Your task to perform on an android device: see tabs open on other devices in the chrome app Image 0: 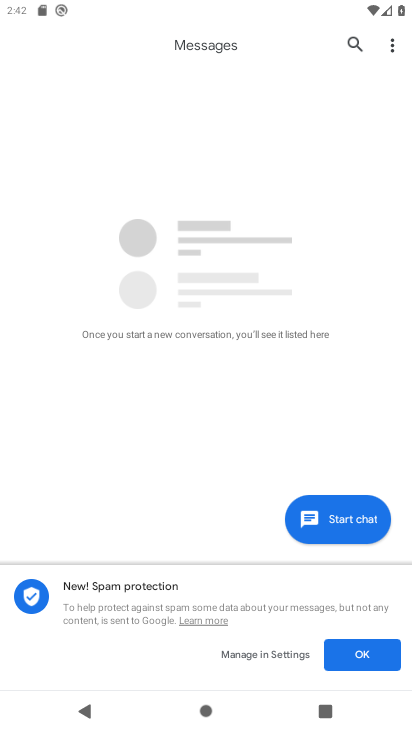
Step 0: press home button
Your task to perform on an android device: see tabs open on other devices in the chrome app Image 1: 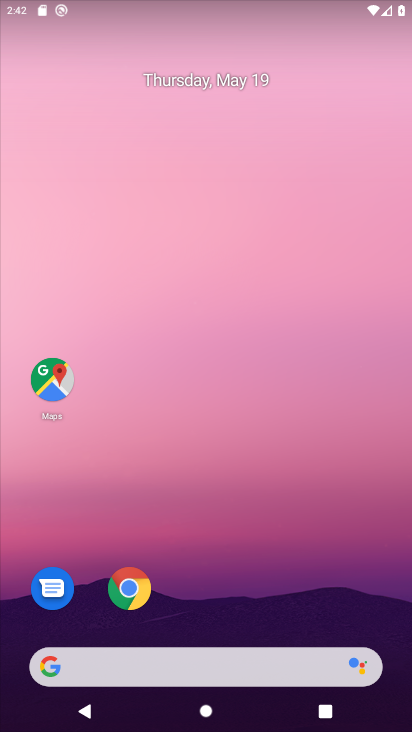
Step 1: click (135, 603)
Your task to perform on an android device: see tabs open on other devices in the chrome app Image 2: 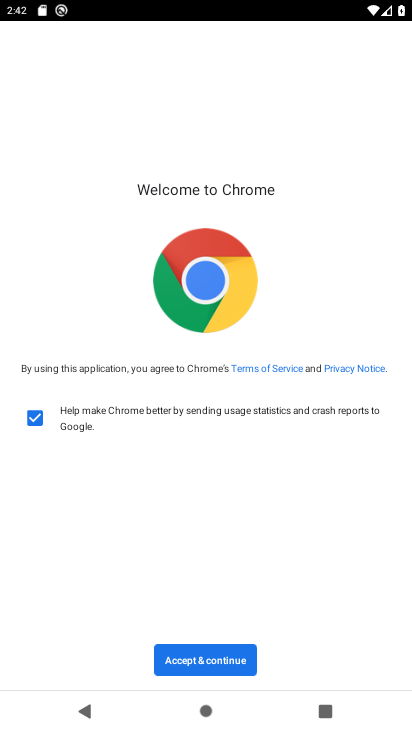
Step 2: click (200, 645)
Your task to perform on an android device: see tabs open on other devices in the chrome app Image 3: 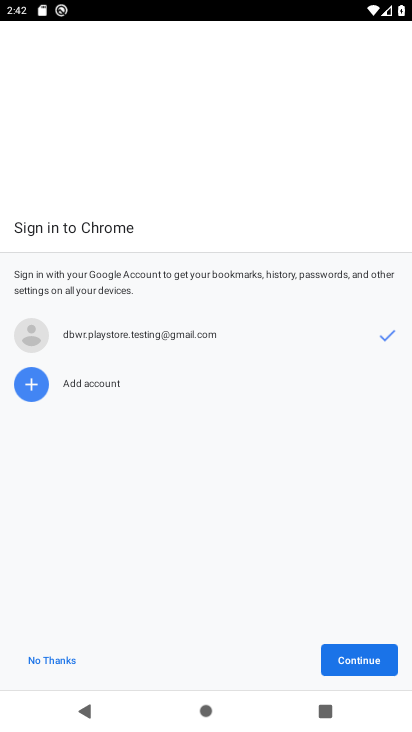
Step 3: click (46, 661)
Your task to perform on an android device: see tabs open on other devices in the chrome app Image 4: 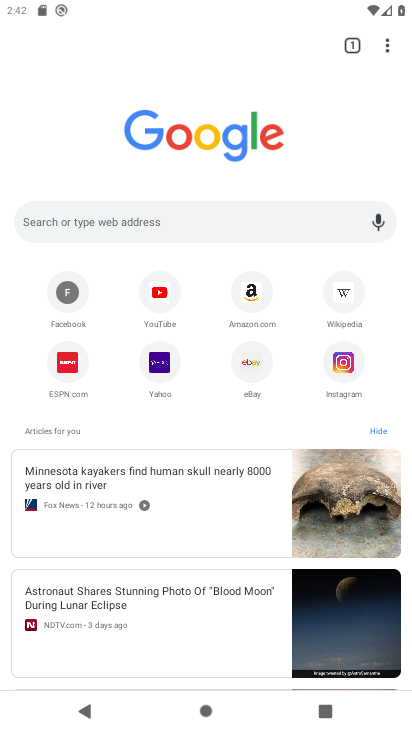
Step 4: click (384, 46)
Your task to perform on an android device: see tabs open on other devices in the chrome app Image 5: 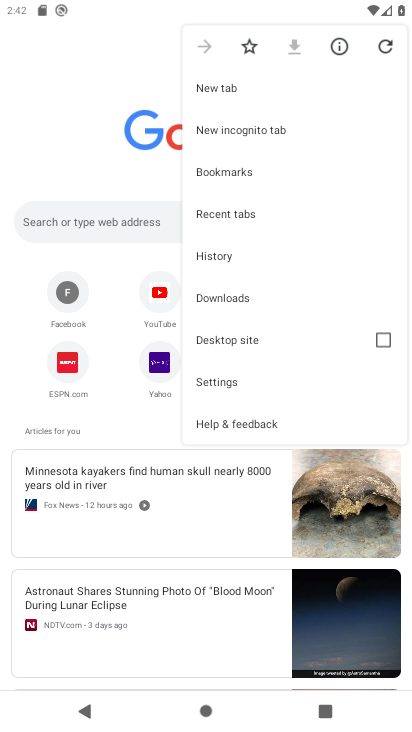
Step 5: click (223, 93)
Your task to perform on an android device: see tabs open on other devices in the chrome app Image 6: 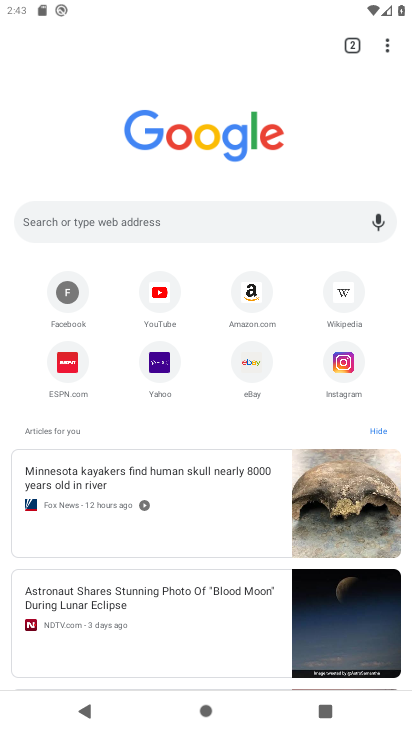
Step 6: task complete